Your task to perform on an android device: toggle priority inbox in the gmail app Image 0: 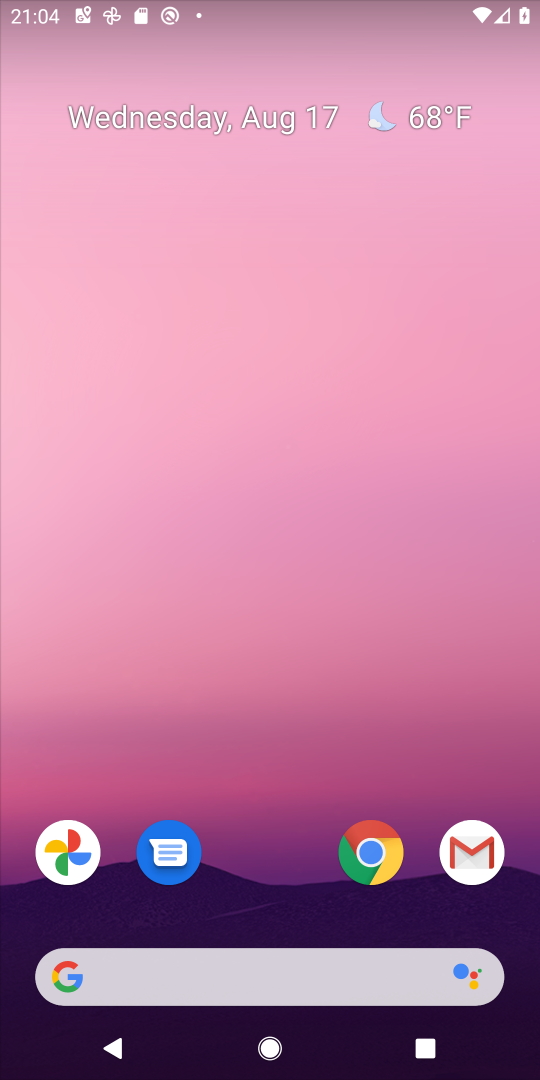
Step 0: press home button
Your task to perform on an android device: toggle priority inbox in the gmail app Image 1: 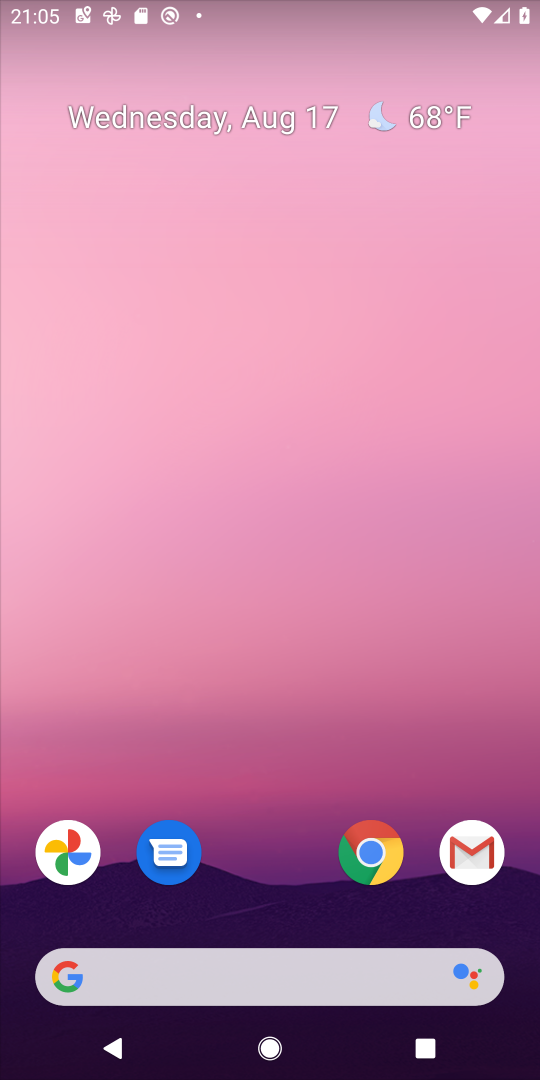
Step 1: click (476, 855)
Your task to perform on an android device: toggle priority inbox in the gmail app Image 2: 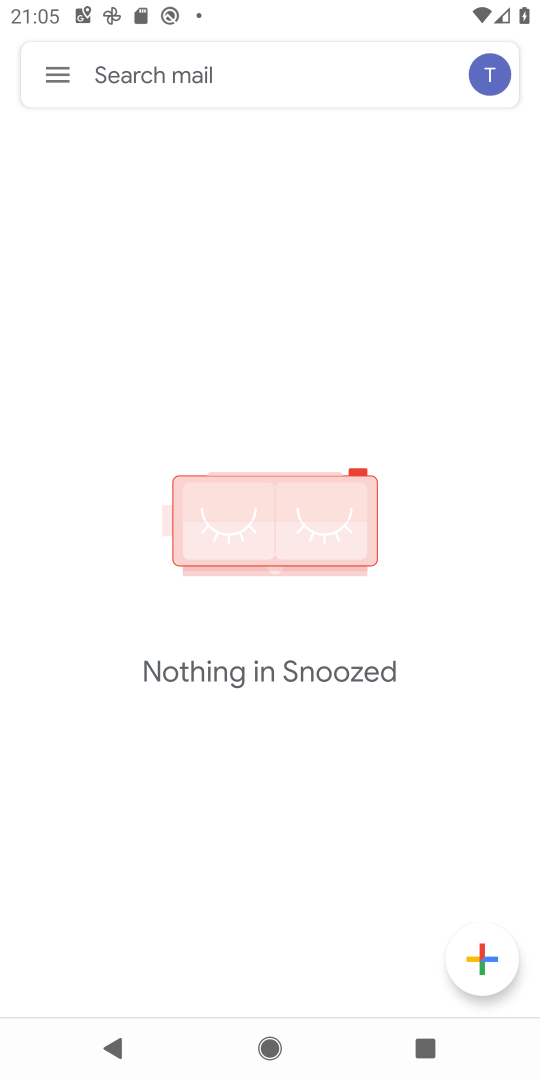
Step 2: click (57, 69)
Your task to perform on an android device: toggle priority inbox in the gmail app Image 3: 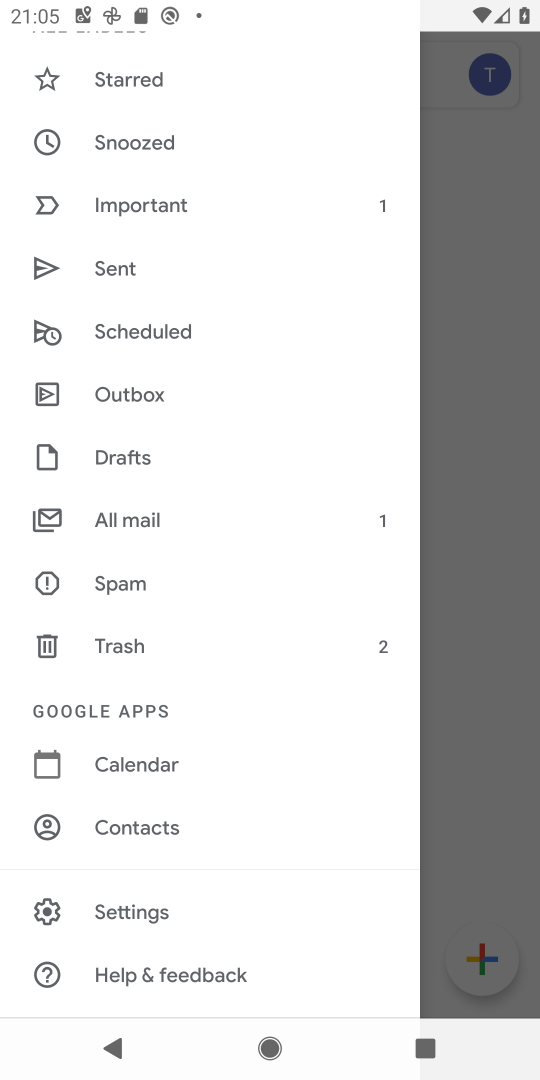
Step 3: click (98, 908)
Your task to perform on an android device: toggle priority inbox in the gmail app Image 4: 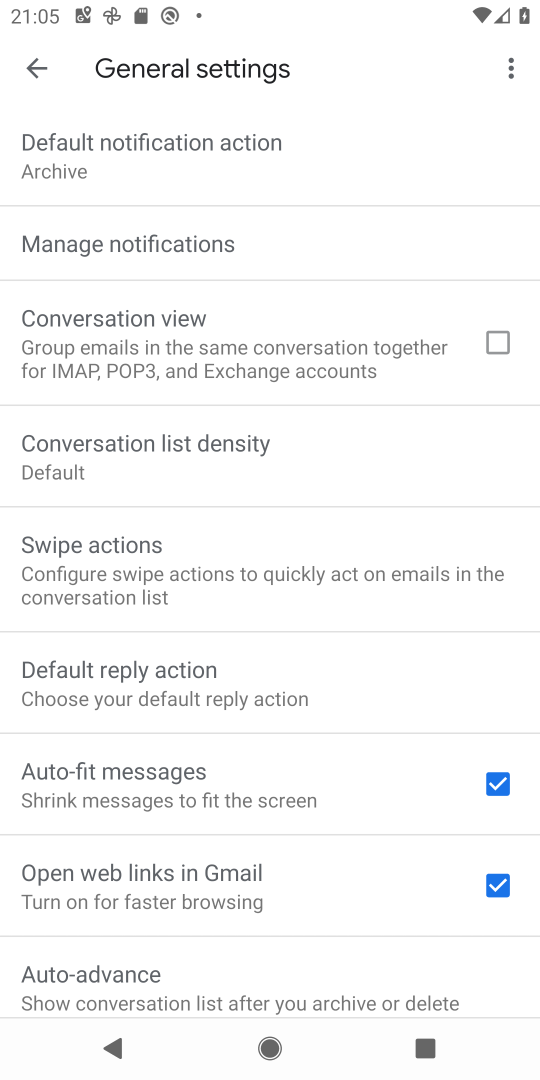
Step 4: click (40, 69)
Your task to perform on an android device: toggle priority inbox in the gmail app Image 5: 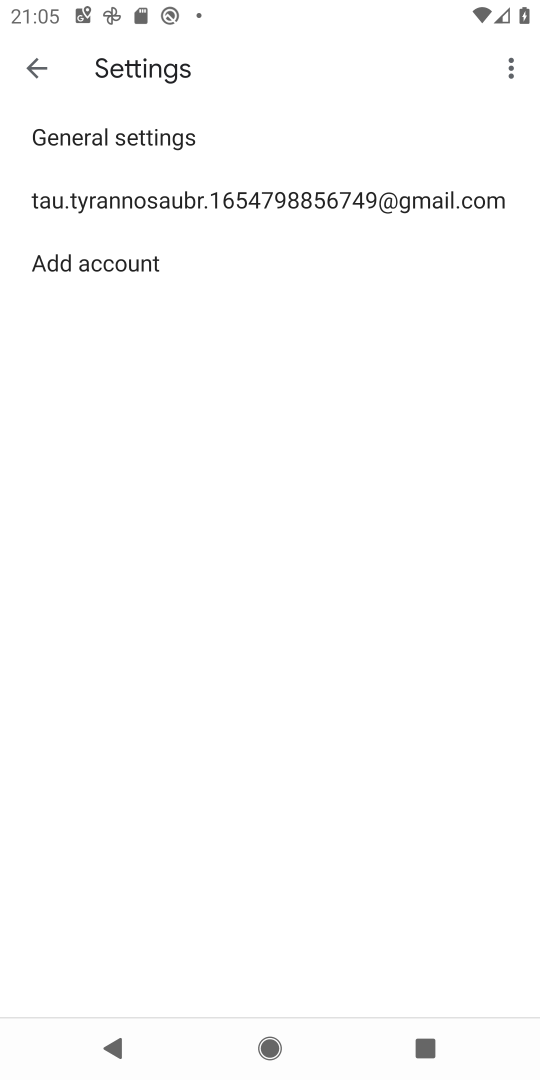
Step 5: click (97, 198)
Your task to perform on an android device: toggle priority inbox in the gmail app Image 6: 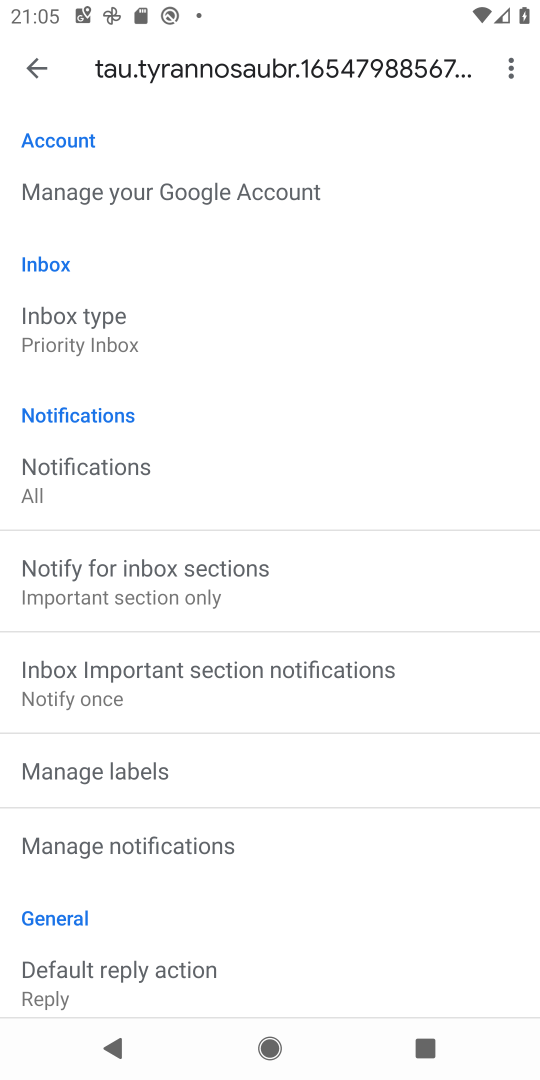
Step 6: click (93, 318)
Your task to perform on an android device: toggle priority inbox in the gmail app Image 7: 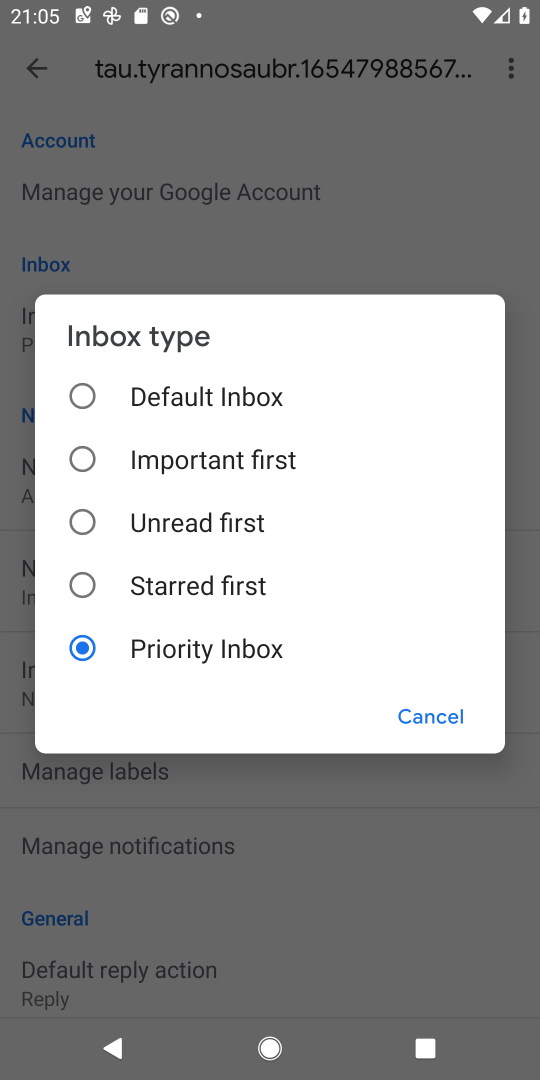
Step 7: click (82, 397)
Your task to perform on an android device: toggle priority inbox in the gmail app Image 8: 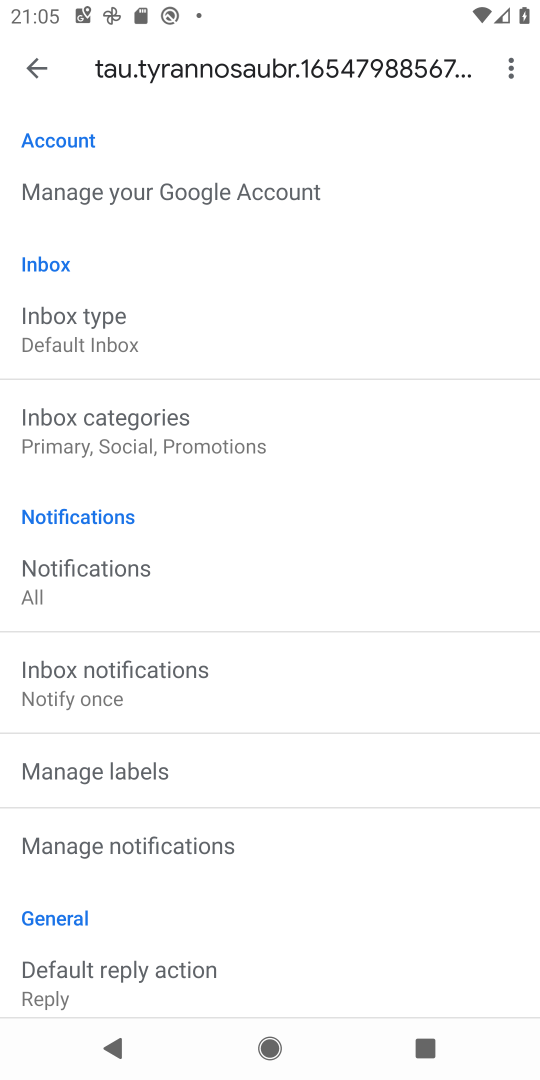
Step 8: task complete